Your task to perform on an android device: Go to Android settings Image 0: 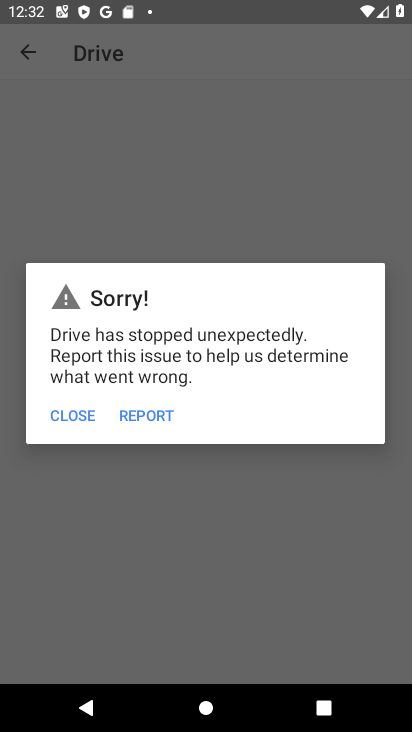
Step 0: press home button
Your task to perform on an android device: Go to Android settings Image 1: 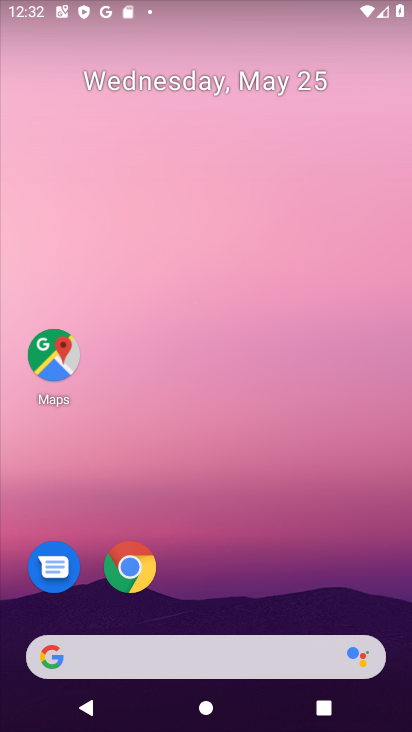
Step 1: drag from (238, 592) to (205, 217)
Your task to perform on an android device: Go to Android settings Image 2: 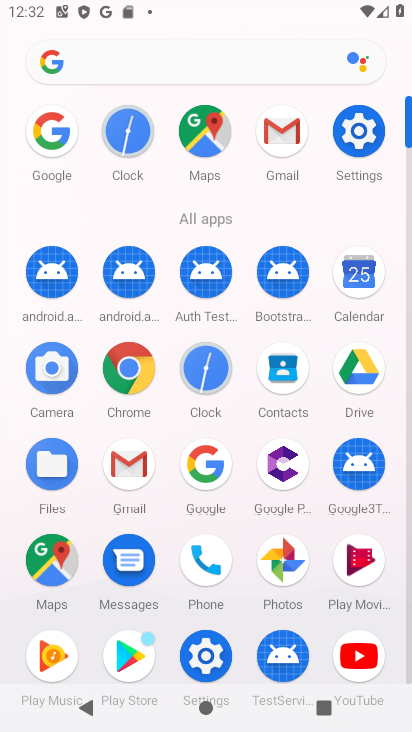
Step 2: click (362, 131)
Your task to perform on an android device: Go to Android settings Image 3: 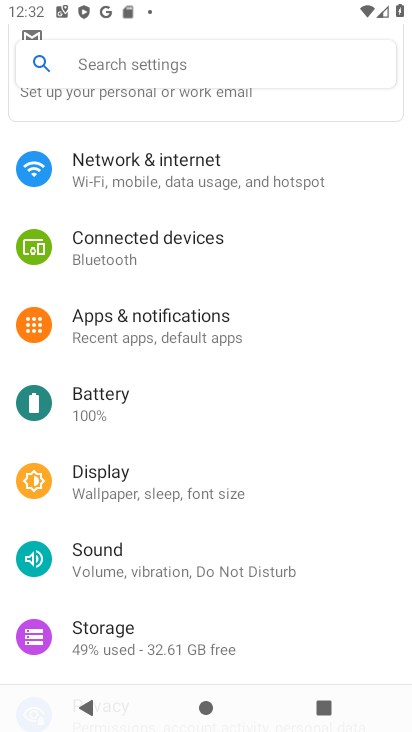
Step 3: task complete